Your task to perform on an android device: turn off translation in the chrome app Image 0: 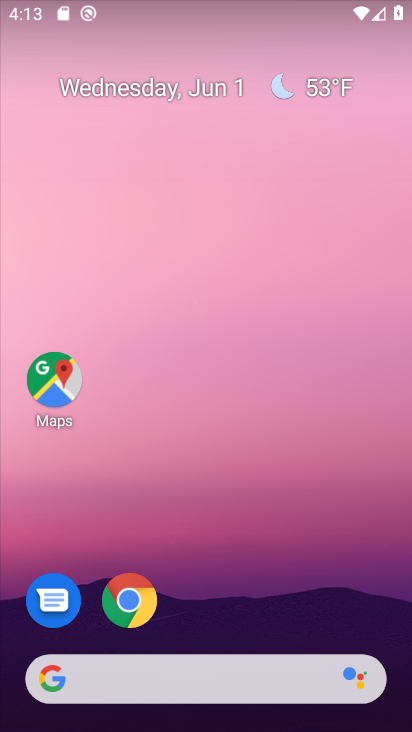
Step 0: click (193, 257)
Your task to perform on an android device: turn off translation in the chrome app Image 1: 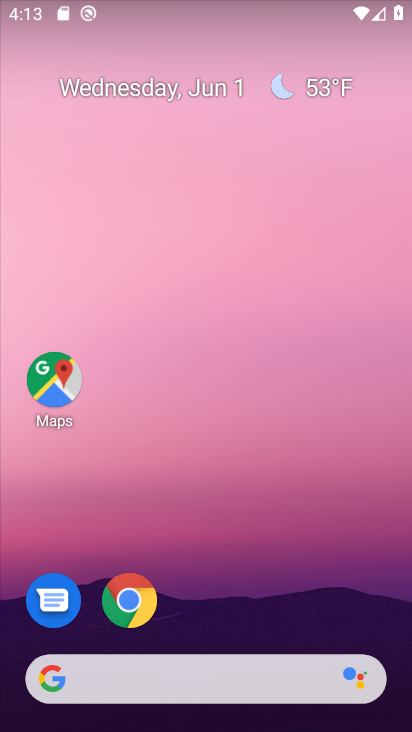
Step 1: drag from (266, 692) to (101, 173)
Your task to perform on an android device: turn off translation in the chrome app Image 2: 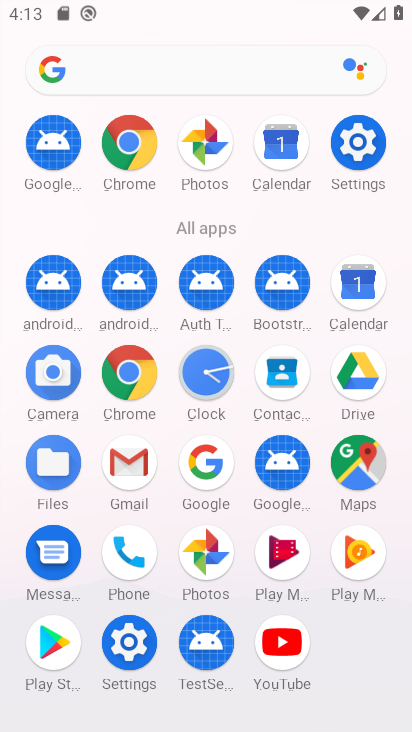
Step 2: drag from (222, 725) to (88, 140)
Your task to perform on an android device: turn off translation in the chrome app Image 3: 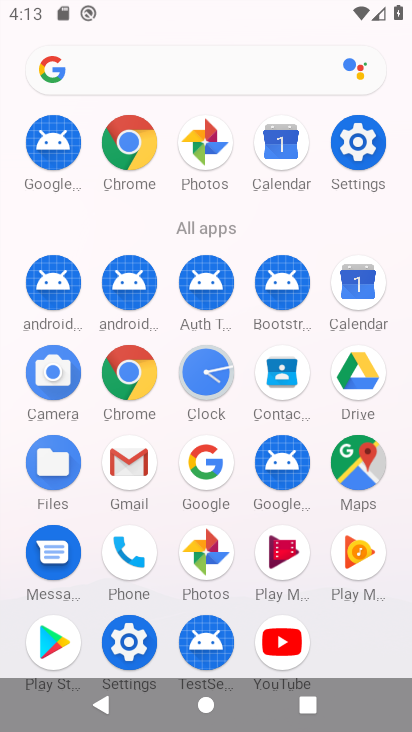
Step 3: click (132, 128)
Your task to perform on an android device: turn off translation in the chrome app Image 4: 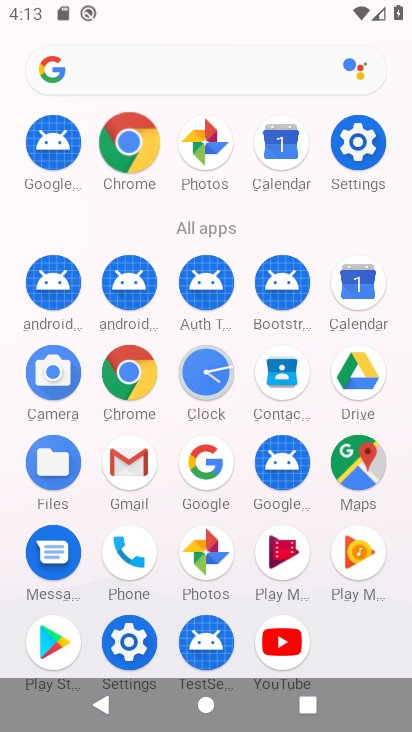
Step 4: click (132, 128)
Your task to perform on an android device: turn off translation in the chrome app Image 5: 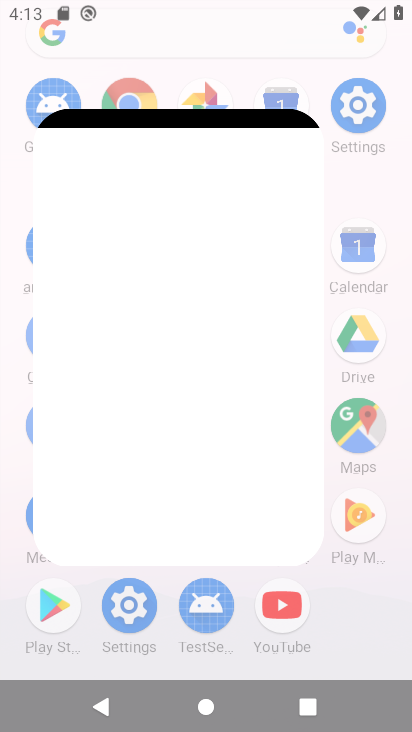
Step 5: click (134, 136)
Your task to perform on an android device: turn off translation in the chrome app Image 6: 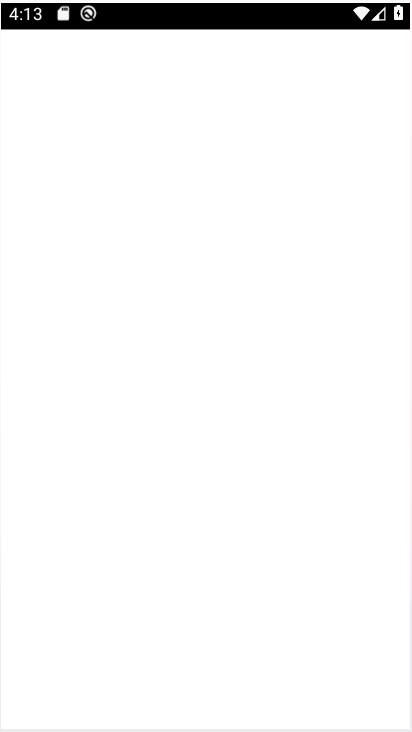
Step 6: click (145, 148)
Your task to perform on an android device: turn off translation in the chrome app Image 7: 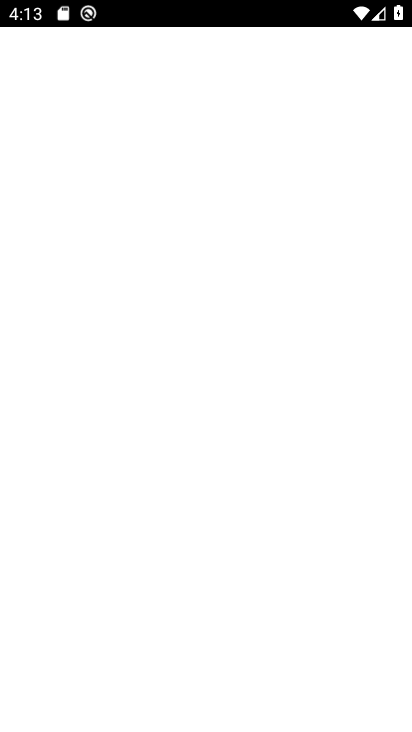
Step 7: click (149, 152)
Your task to perform on an android device: turn off translation in the chrome app Image 8: 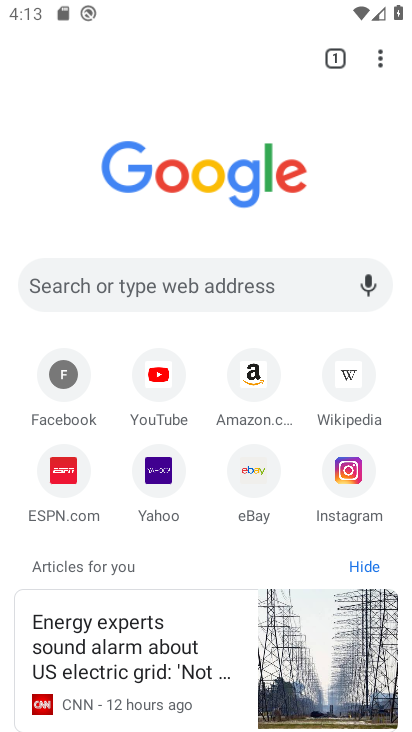
Step 8: drag from (379, 57) to (166, 491)
Your task to perform on an android device: turn off translation in the chrome app Image 9: 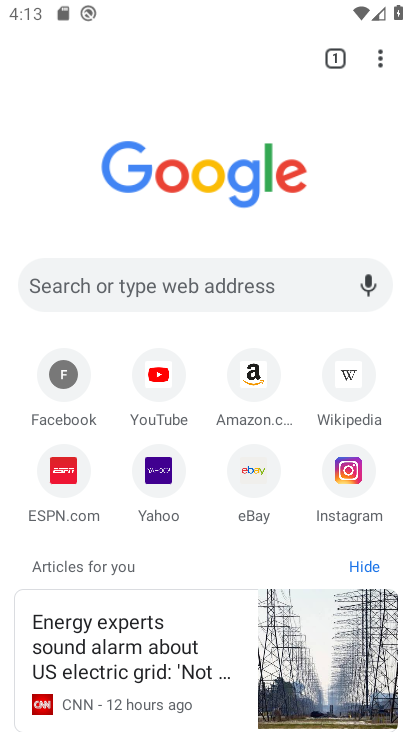
Step 9: click (168, 486)
Your task to perform on an android device: turn off translation in the chrome app Image 10: 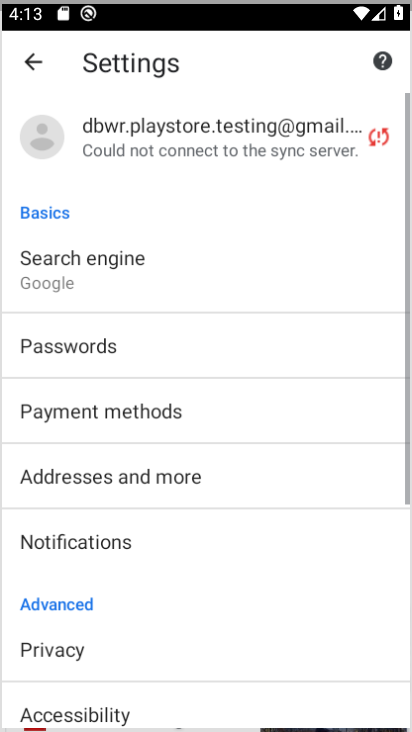
Step 10: click (168, 486)
Your task to perform on an android device: turn off translation in the chrome app Image 11: 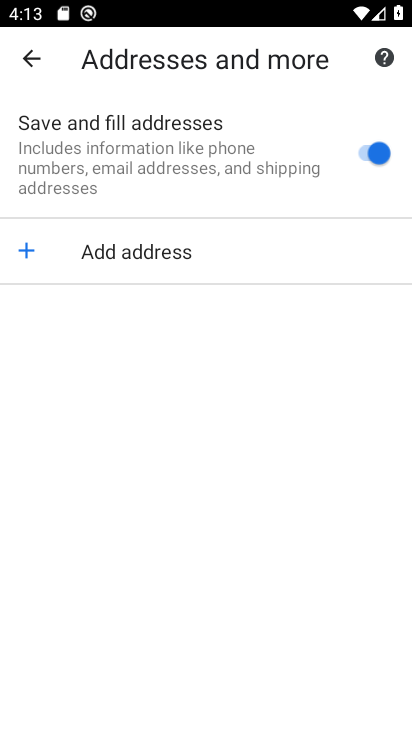
Step 11: click (28, 63)
Your task to perform on an android device: turn off translation in the chrome app Image 12: 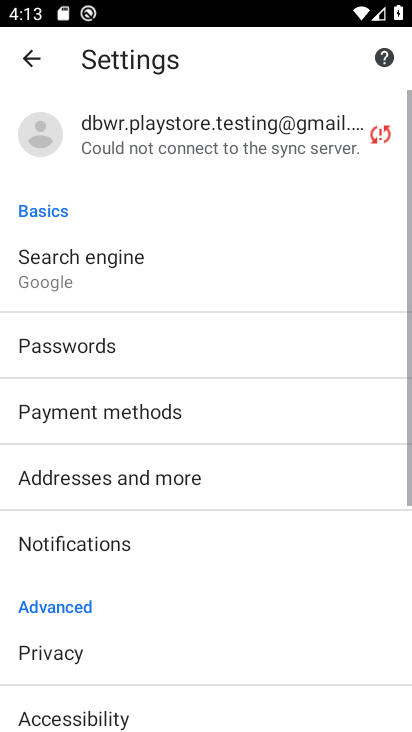
Step 12: drag from (159, 536) to (125, 217)
Your task to perform on an android device: turn off translation in the chrome app Image 13: 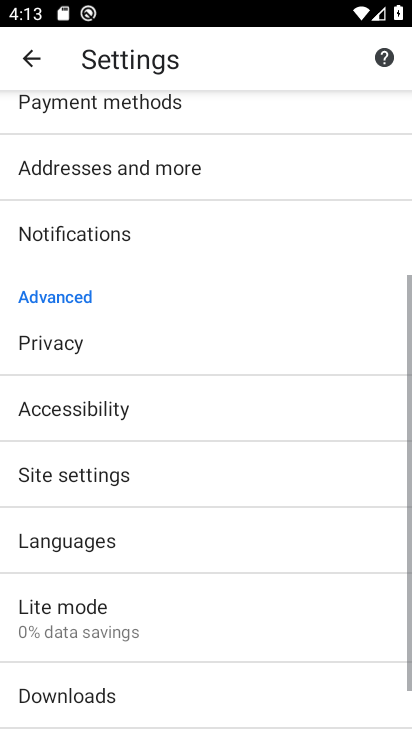
Step 13: drag from (173, 506) to (200, 81)
Your task to perform on an android device: turn off translation in the chrome app Image 14: 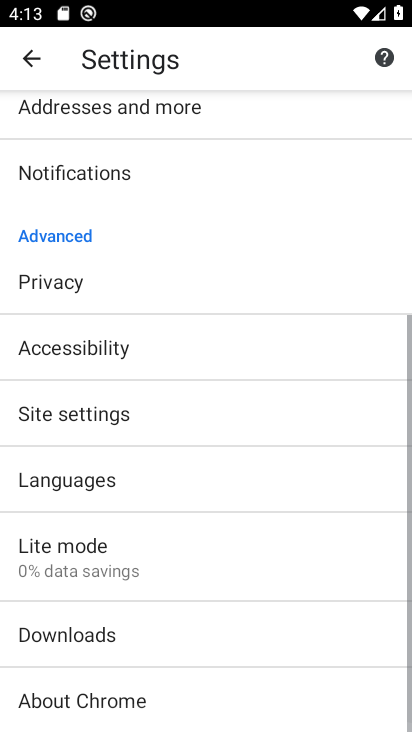
Step 14: drag from (203, 509) to (229, 189)
Your task to perform on an android device: turn off translation in the chrome app Image 15: 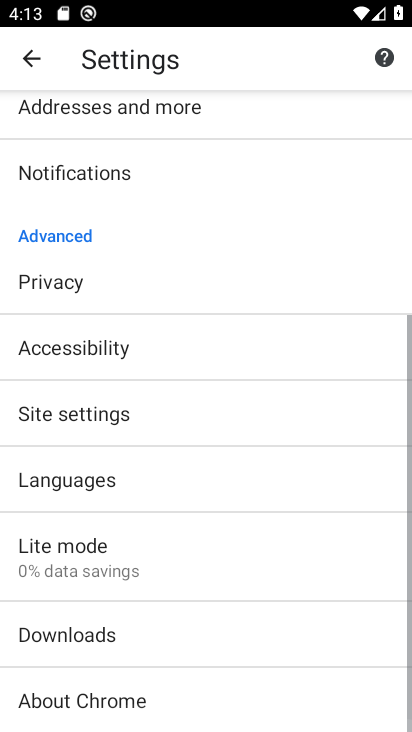
Step 15: drag from (137, 582) to (158, 208)
Your task to perform on an android device: turn off translation in the chrome app Image 16: 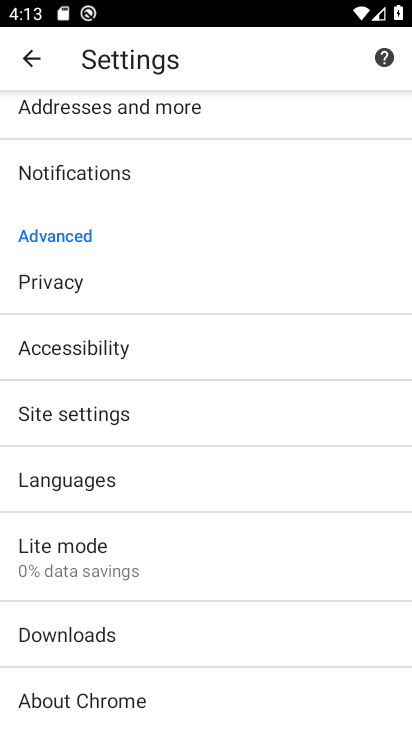
Step 16: click (66, 471)
Your task to perform on an android device: turn off translation in the chrome app Image 17: 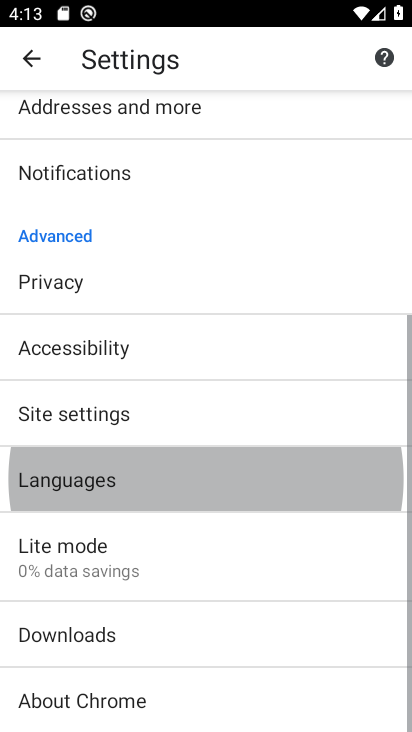
Step 17: click (67, 470)
Your task to perform on an android device: turn off translation in the chrome app Image 18: 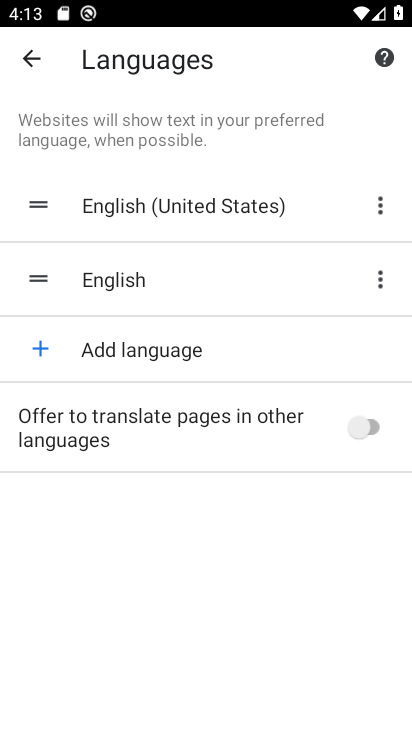
Step 18: task complete